Your task to perform on an android device: set default search engine in the chrome app Image 0: 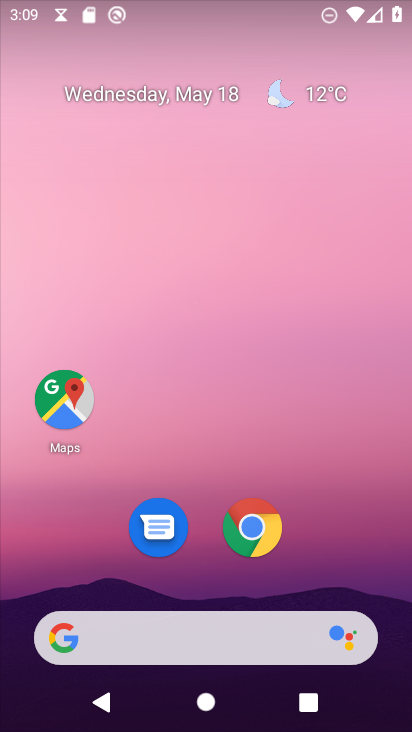
Step 0: click (258, 523)
Your task to perform on an android device: set default search engine in the chrome app Image 1: 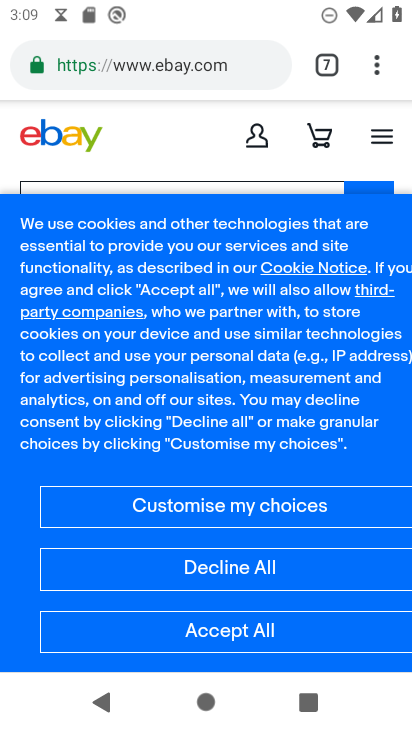
Step 1: click (376, 70)
Your task to perform on an android device: set default search engine in the chrome app Image 2: 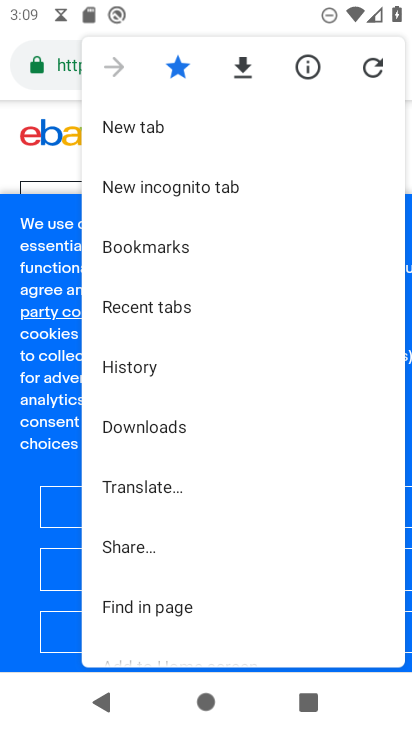
Step 2: drag from (241, 543) to (234, 177)
Your task to perform on an android device: set default search engine in the chrome app Image 3: 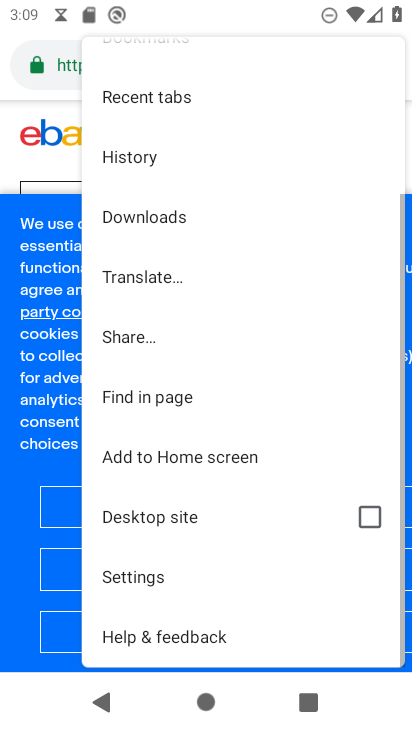
Step 3: click (201, 567)
Your task to perform on an android device: set default search engine in the chrome app Image 4: 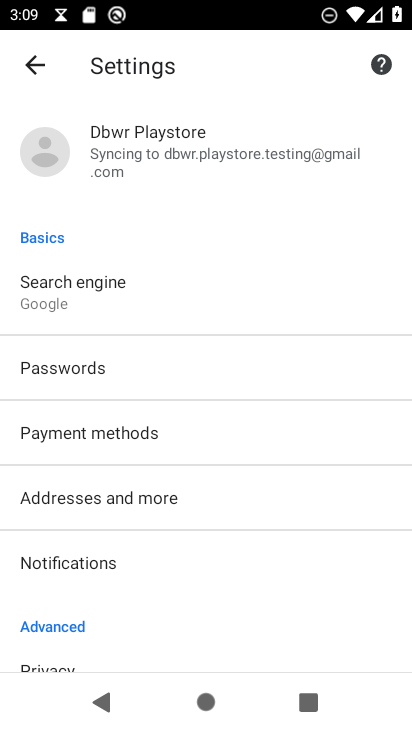
Step 4: click (159, 278)
Your task to perform on an android device: set default search engine in the chrome app Image 5: 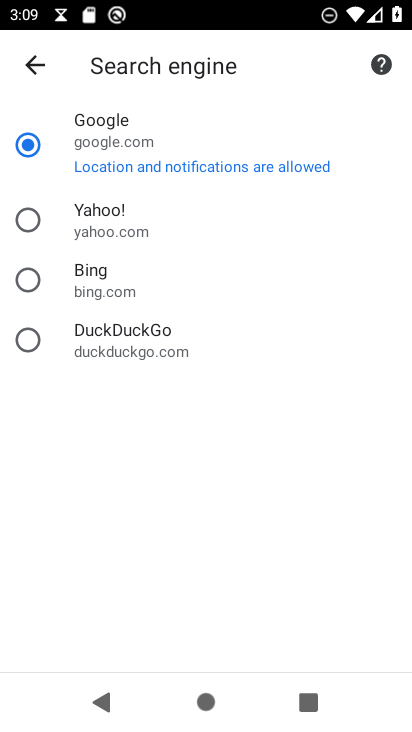
Step 5: click (168, 124)
Your task to perform on an android device: set default search engine in the chrome app Image 6: 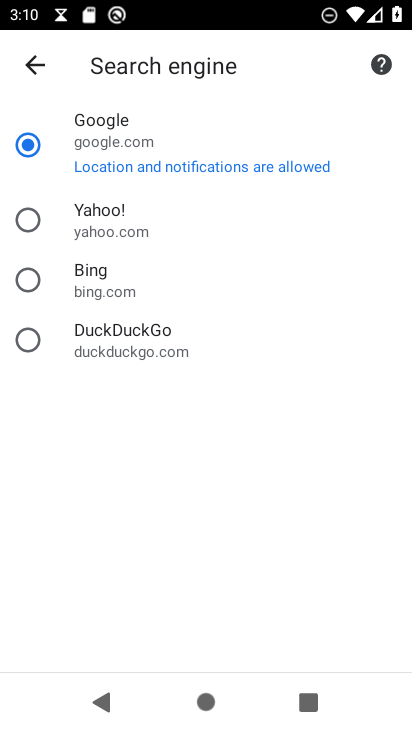
Step 6: task complete